Your task to perform on an android device: change the clock display to show seconds Image 0: 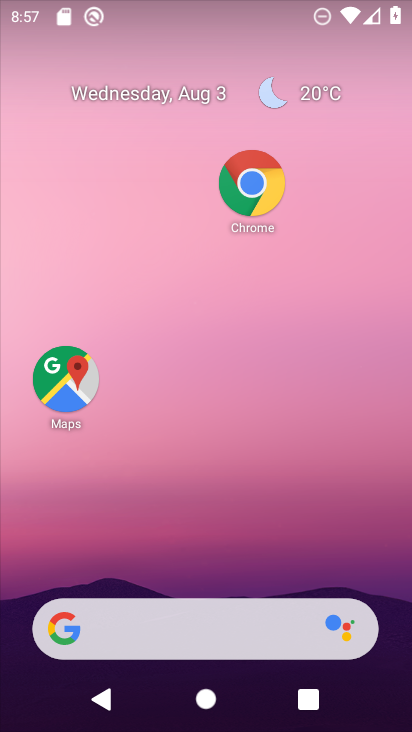
Step 0: drag from (206, 522) to (218, 76)
Your task to perform on an android device: change the clock display to show seconds Image 1: 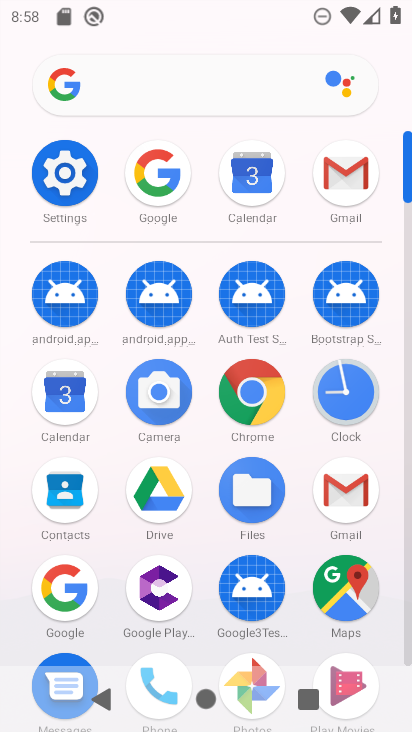
Step 1: click (345, 393)
Your task to perform on an android device: change the clock display to show seconds Image 2: 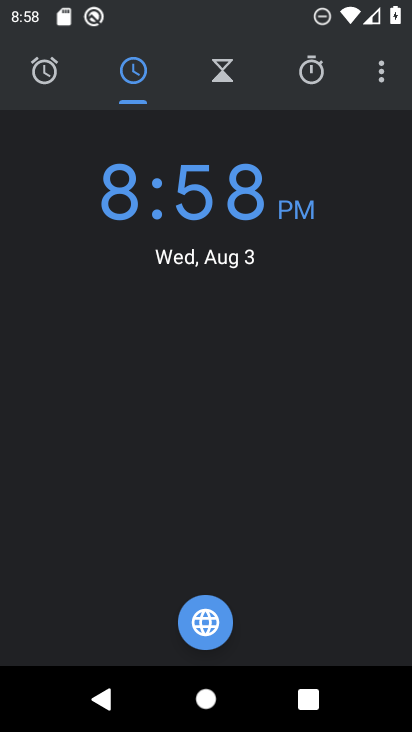
Step 2: click (384, 76)
Your task to perform on an android device: change the clock display to show seconds Image 3: 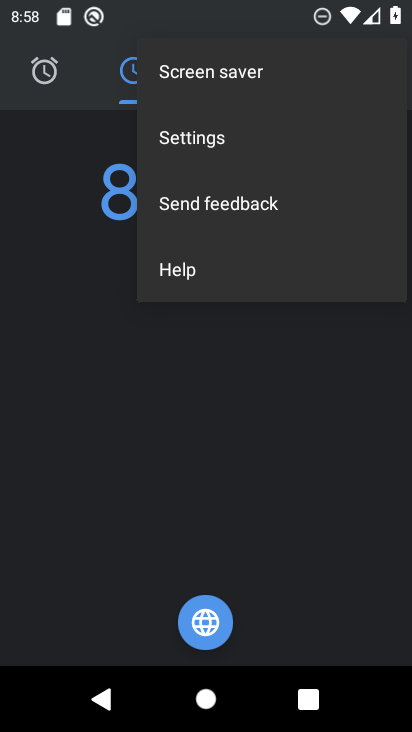
Step 3: click (223, 143)
Your task to perform on an android device: change the clock display to show seconds Image 4: 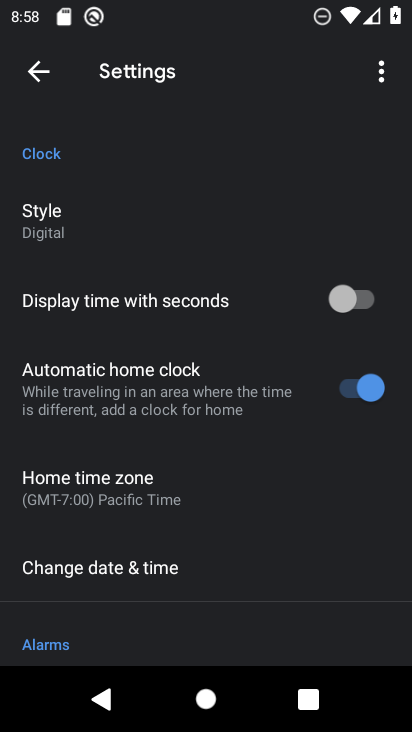
Step 4: click (129, 567)
Your task to perform on an android device: change the clock display to show seconds Image 5: 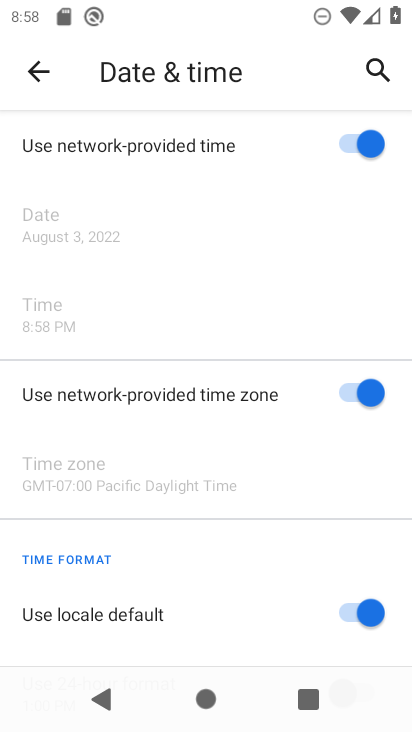
Step 5: drag from (238, 536) to (285, 269)
Your task to perform on an android device: change the clock display to show seconds Image 6: 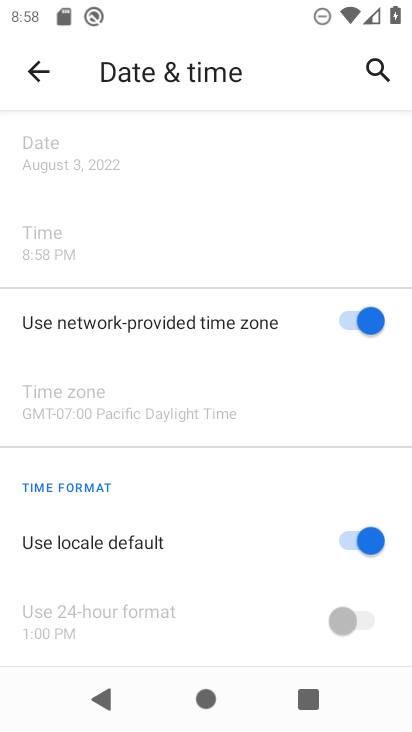
Step 6: drag from (182, 489) to (217, 353)
Your task to perform on an android device: change the clock display to show seconds Image 7: 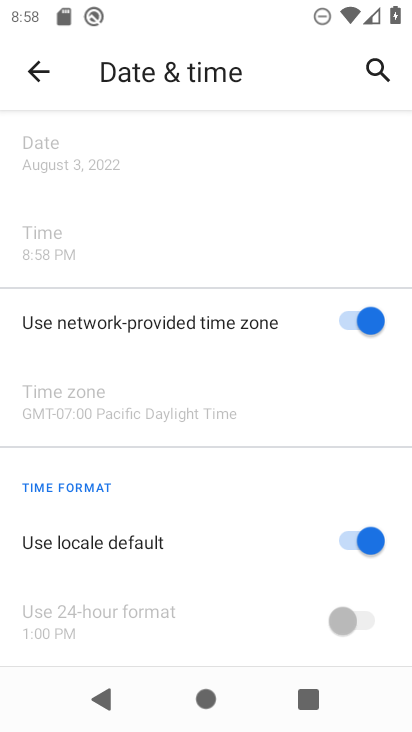
Step 7: click (35, 66)
Your task to perform on an android device: change the clock display to show seconds Image 8: 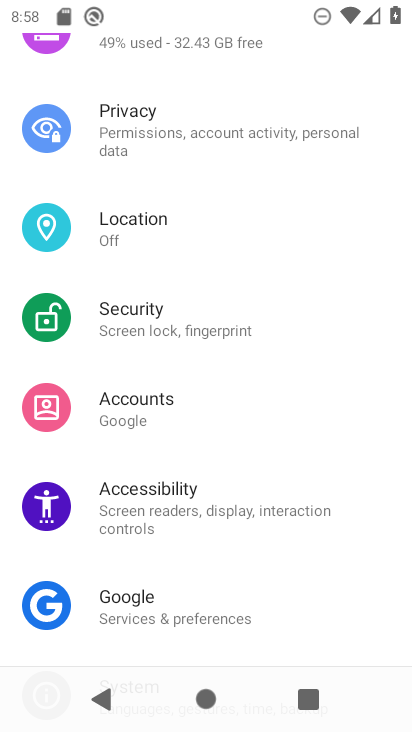
Step 8: press back button
Your task to perform on an android device: change the clock display to show seconds Image 9: 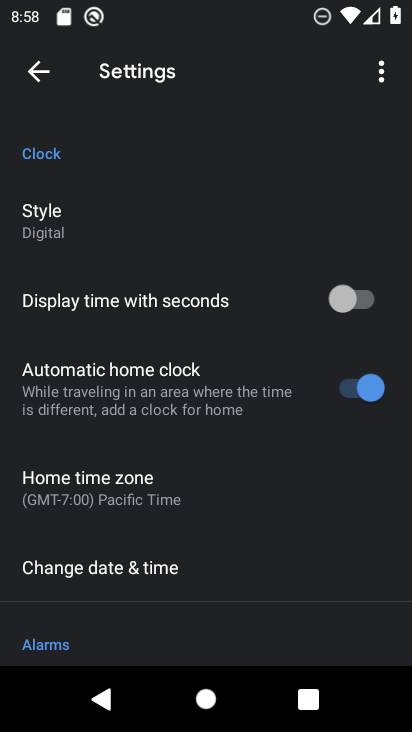
Step 9: click (369, 306)
Your task to perform on an android device: change the clock display to show seconds Image 10: 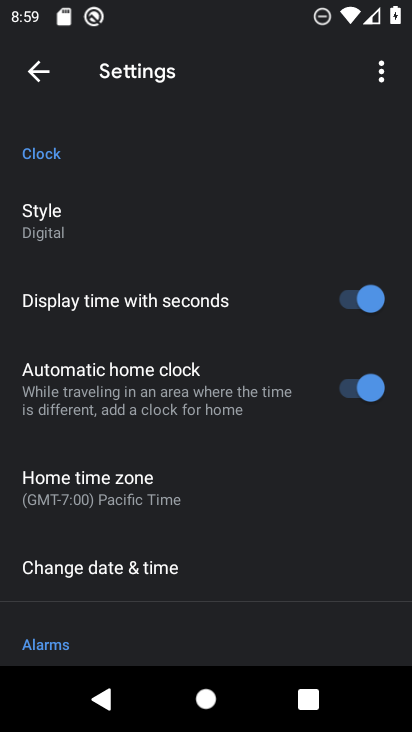
Step 10: task complete